Your task to perform on an android device: Go to Wikipedia Image 0: 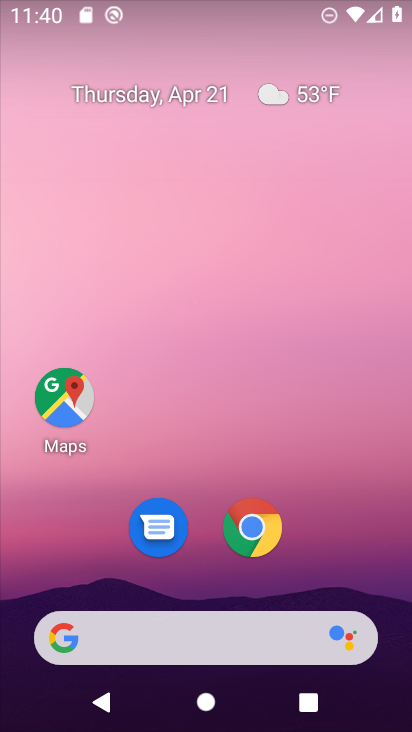
Step 0: drag from (367, 546) to (362, 189)
Your task to perform on an android device: Go to Wikipedia Image 1: 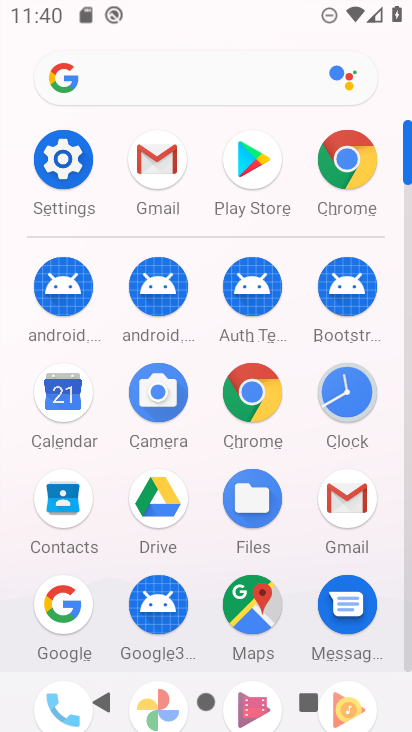
Step 1: click (247, 399)
Your task to perform on an android device: Go to Wikipedia Image 2: 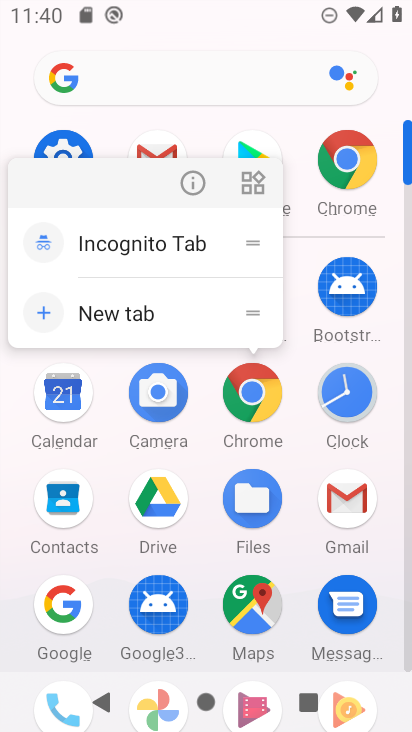
Step 2: click (267, 380)
Your task to perform on an android device: Go to Wikipedia Image 3: 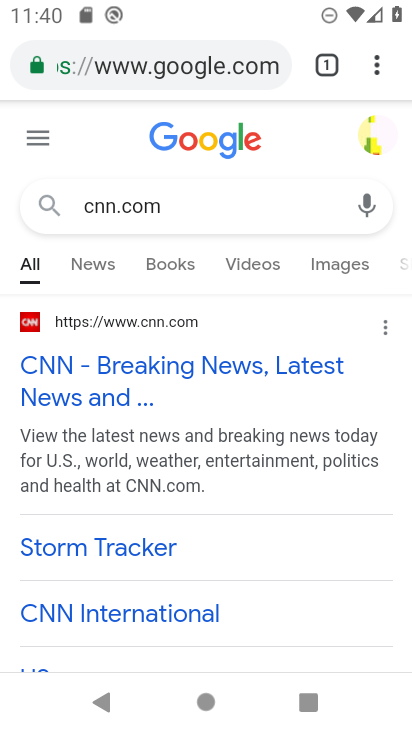
Step 3: press back button
Your task to perform on an android device: Go to Wikipedia Image 4: 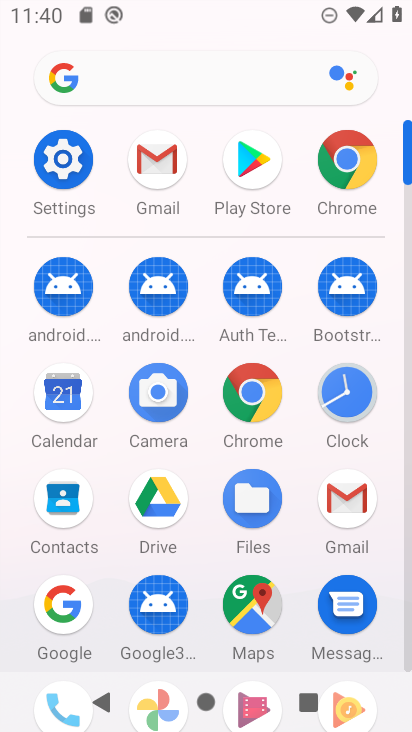
Step 4: click (256, 397)
Your task to perform on an android device: Go to Wikipedia Image 5: 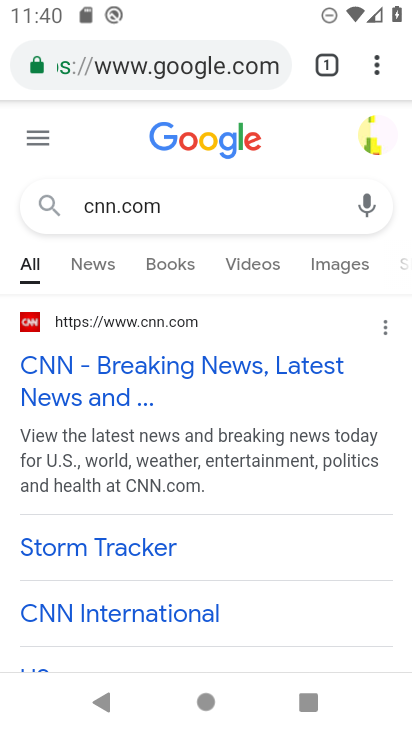
Step 5: click (229, 66)
Your task to perform on an android device: Go to Wikipedia Image 6: 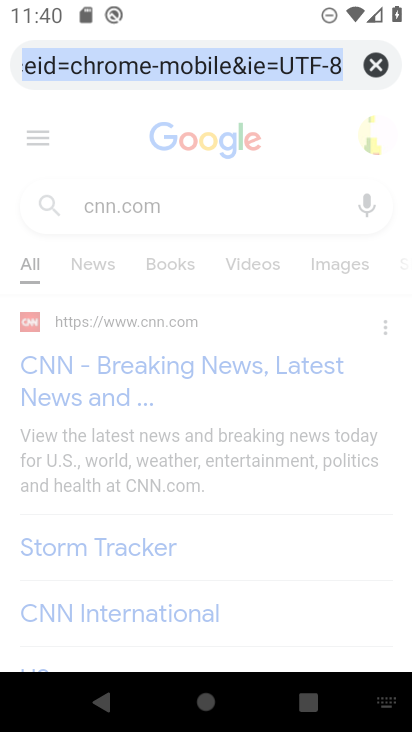
Step 6: click (372, 62)
Your task to perform on an android device: Go to Wikipedia Image 7: 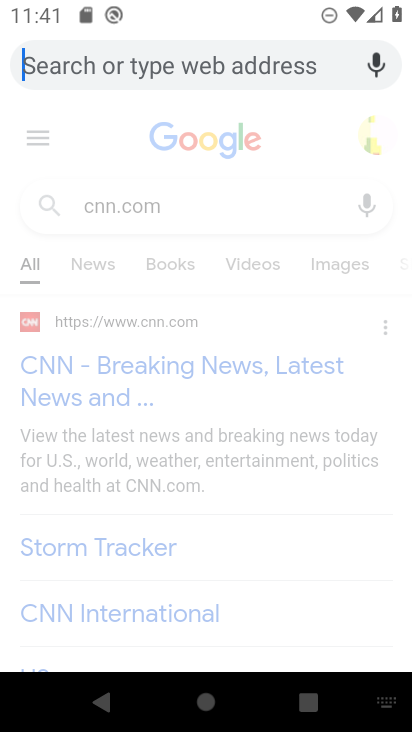
Step 7: type "wikipedia"
Your task to perform on an android device: Go to Wikipedia Image 8: 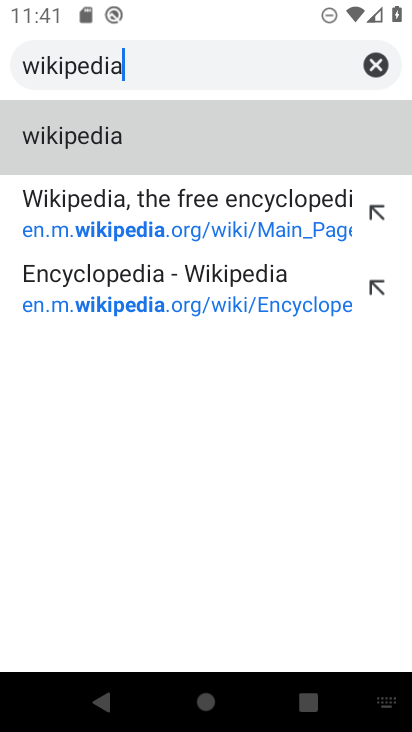
Step 8: click (202, 214)
Your task to perform on an android device: Go to Wikipedia Image 9: 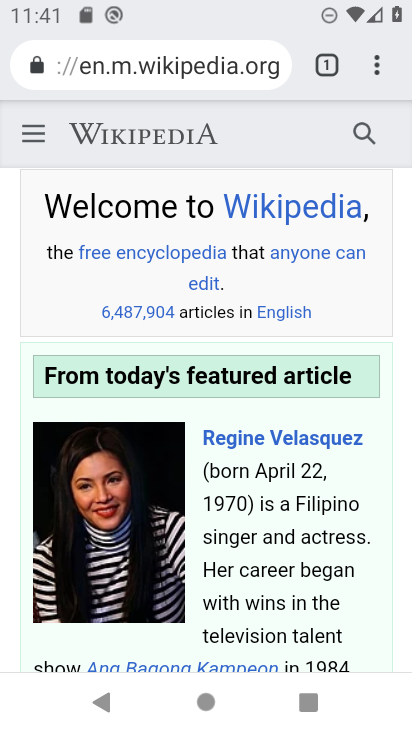
Step 9: task complete